Your task to perform on an android device: Go to CNN.com Image 0: 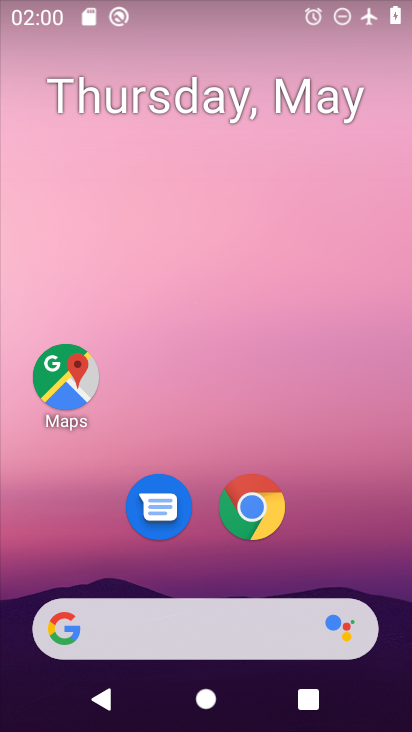
Step 0: click (243, 614)
Your task to perform on an android device: Go to CNN.com Image 1: 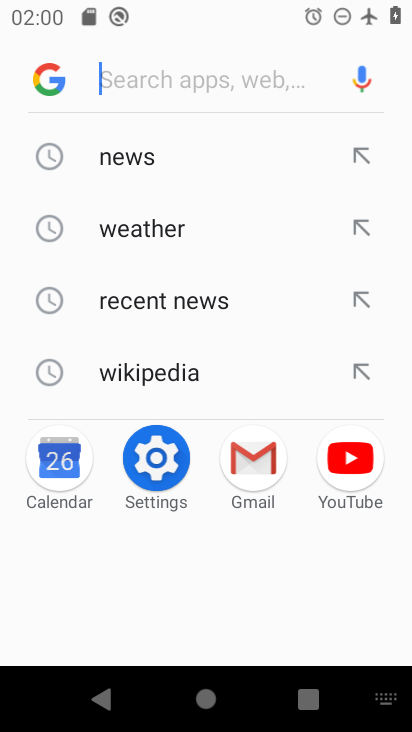
Step 1: type "cnn.com"
Your task to perform on an android device: Go to CNN.com Image 2: 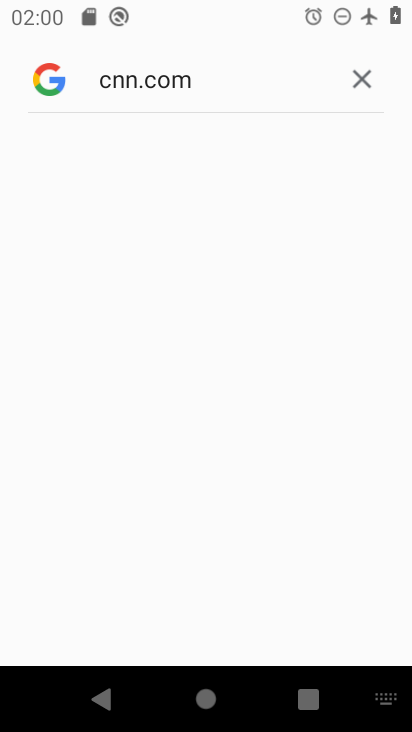
Step 2: task complete